Your task to perform on an android device: star an email in the gmail app Image 0: 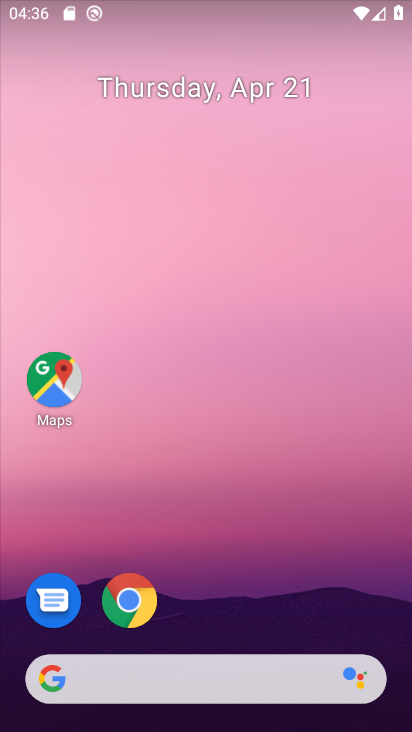
Step 0: drag from (352, 541) to (344, 10)
Your task to perform on an android device: star an email in the gmail app Image 1: 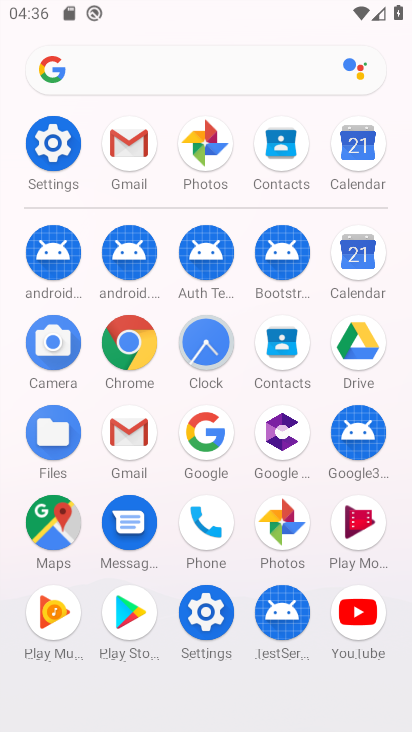
Step 1: click (126, 145)
Your task to perform on an android device: star an email in the gmail app Image 2: 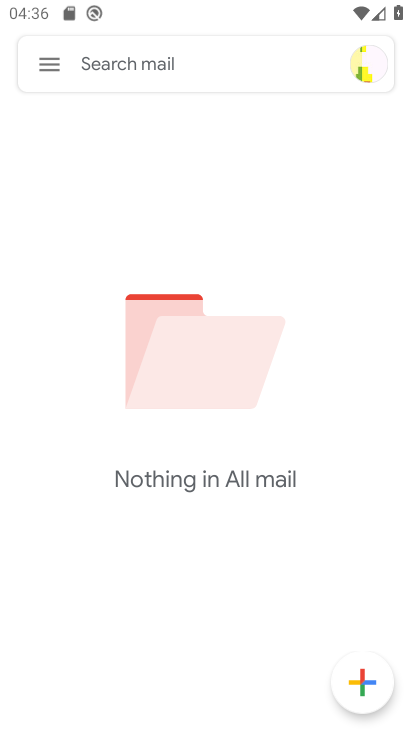
Step 2: task complete